Your task to perform on an android device: check the backup settings in the google photos Image 0: 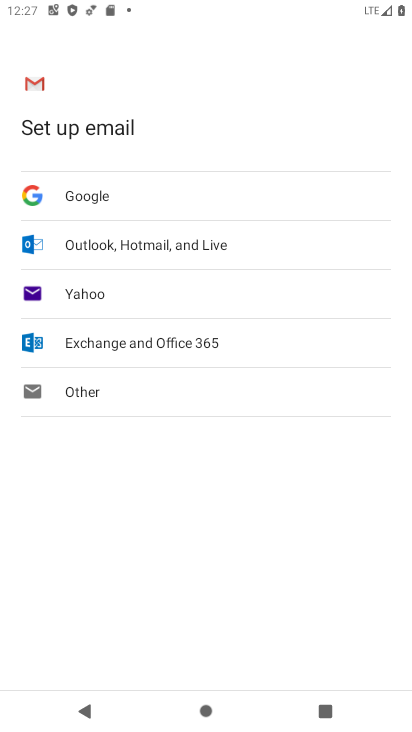
Step 0: press home button
Your task to perform on an android device: check the backup settings in the google photos Image 1: 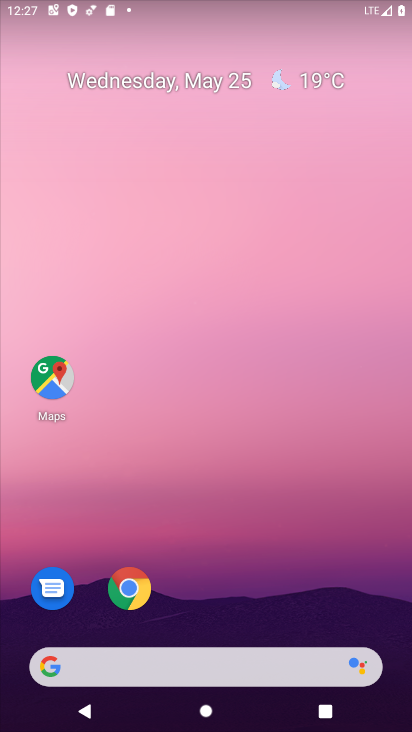
Step 1: drag from (209, 514) to (262, 158)
Your task to perform on an android device: check the backup settings in the google photos Image 2: 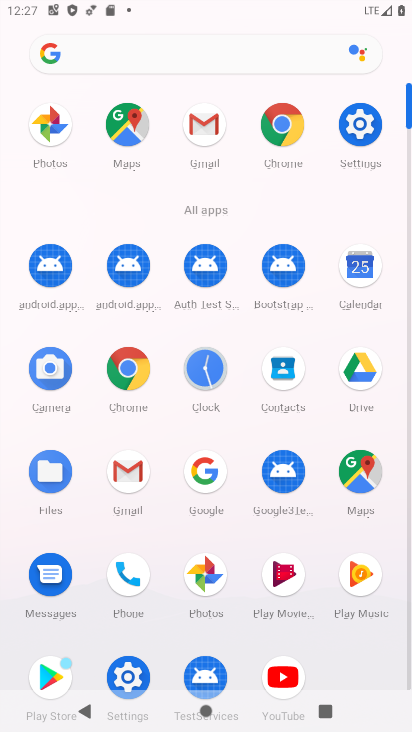
Step 2: click (216, 569)
Your task to perform on an android device: check the backup settings in the google photos Image 3: 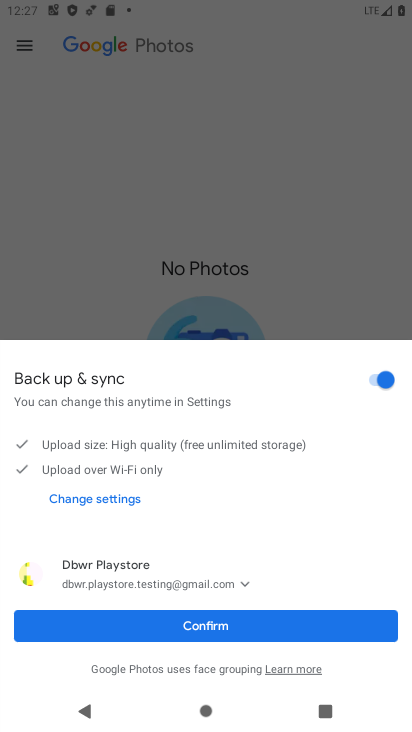
Step 3: click (224, 634)
Your task to perform on an android device: check the backup settings in the google photos Image 4: 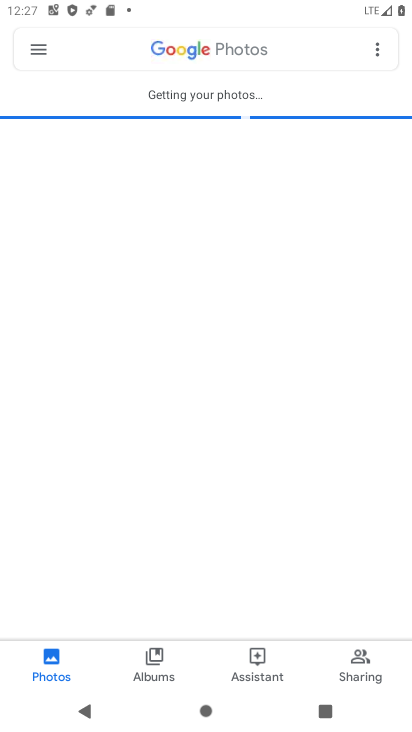
Step 4: click (50, 49)
Your task to perform on an android device: check the backup settings in the google photos Image 5: 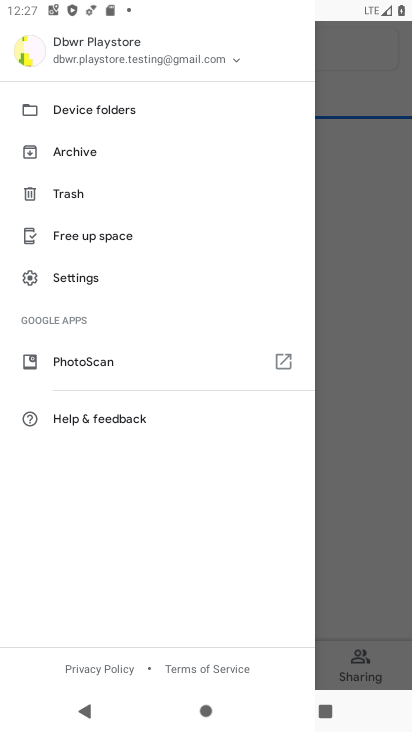
Step 5: click (110, 284)
Your task to perform on an android device: check the backup settings in the google photos Image 6: 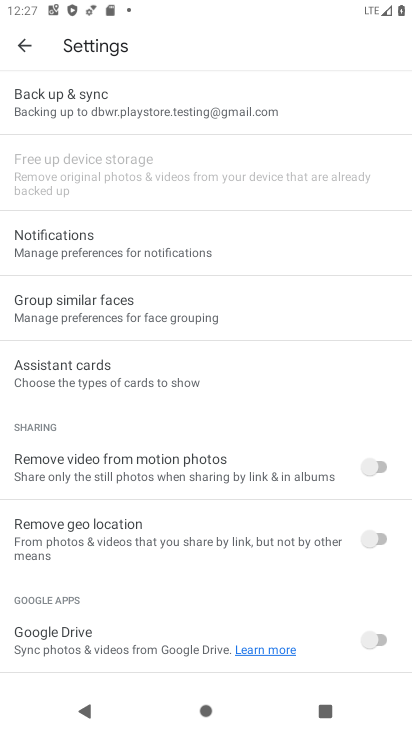
Step 6: click (196, 121)
Your task to perform on an android device: check the backup settings in the google photos Image 7: 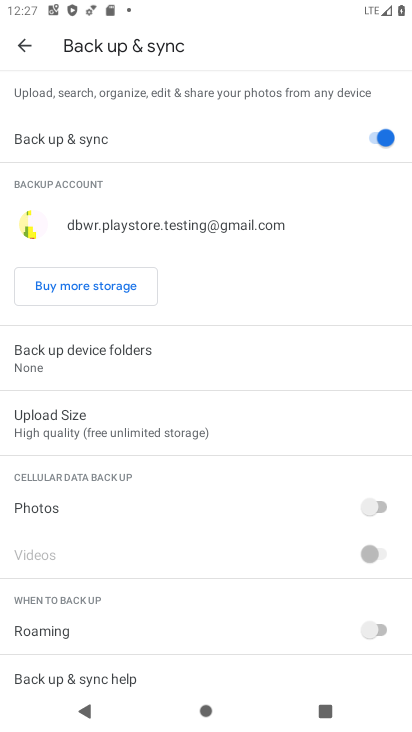
Step 7: task complete